Your task to perform on an android device: add a contact Image 0: 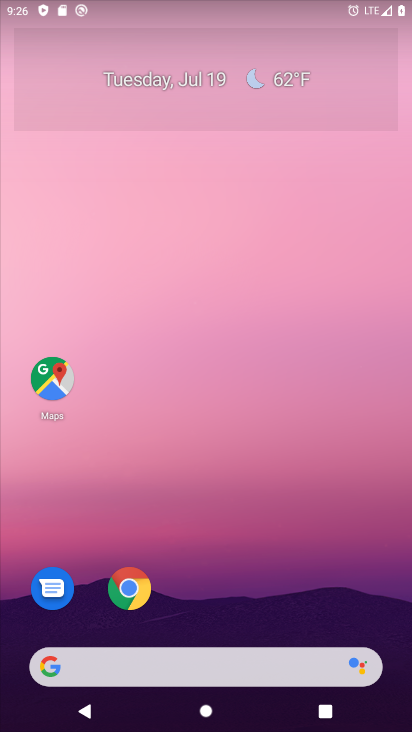
Step 0: drag from (310, 299) to (328, 23)
Your task to perform on an android device: add a contact Image 1: 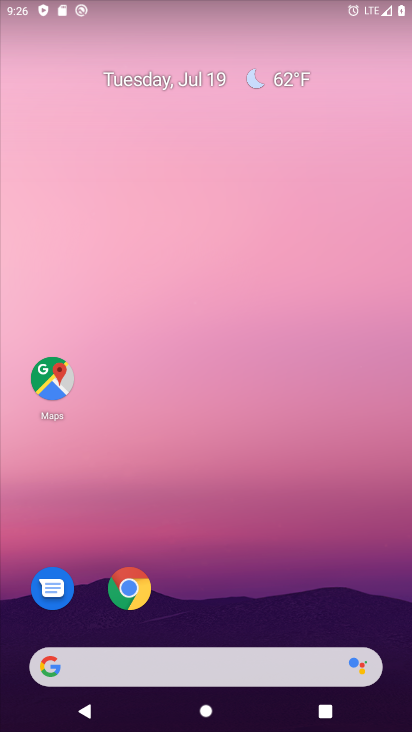
Step 1: drag from (247, 69) to (171, 2)
Your task to perform on an android device: add a contact Image 2: 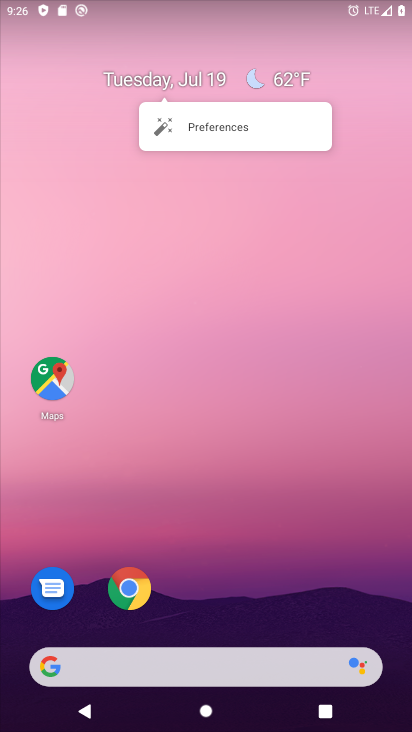
Step 2: click (246, 583)
Your task to perform on an android device: add a contact Image 3: 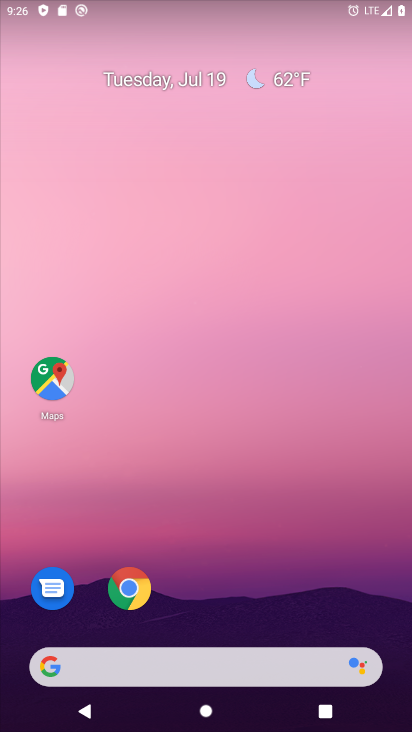
Step 3: drag from (260, 495) to (265, 63)
Your task to perform on an android device: add a contact Image 4: 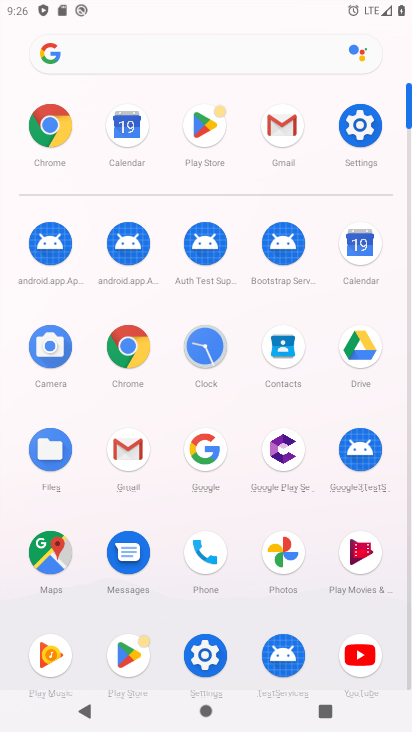
Step 4: click (192, 559)
Your task to perform on an android device: add a contact Image 5: 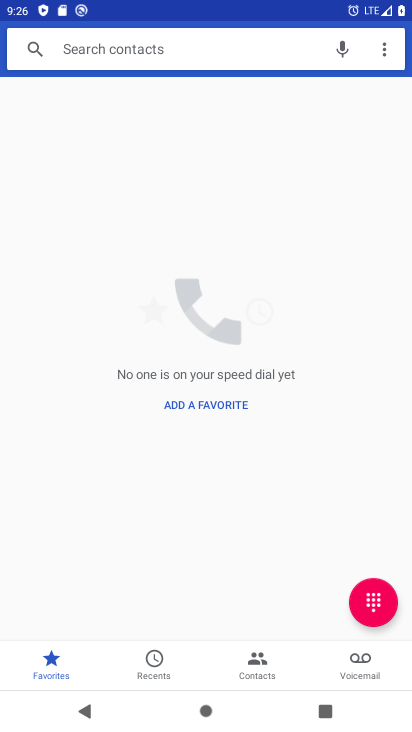
Step 5: click (240, 657)
Your task to perform on an android device: add a contact Image 6: 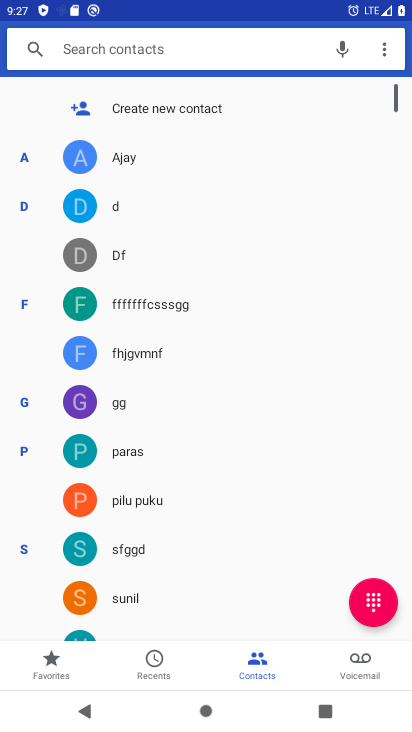
Step 6: click (173, 99)
Your task to perform on an android device: add a contact Image 7: 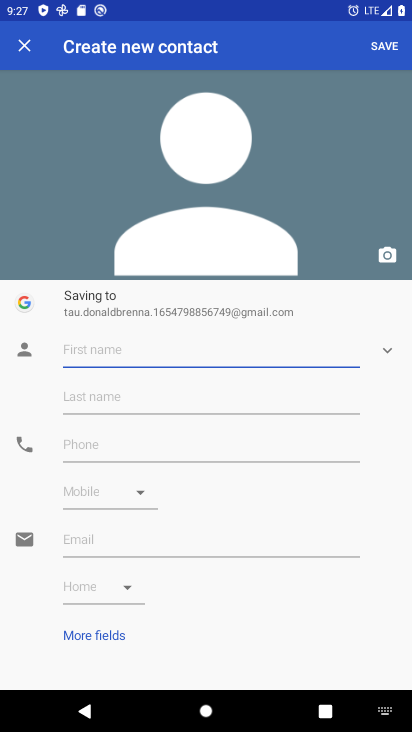
Step 7: type "tyuhhhhhhh"
Your task to perform on an android device: add a contact Image 8: 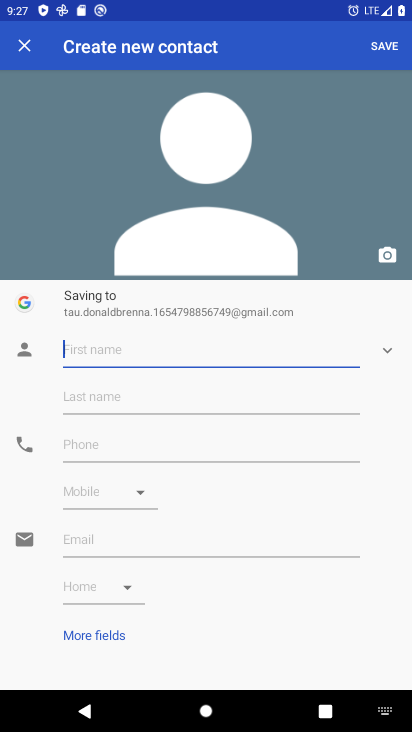
Step 8: click (109, 443)
Your task to perform on an android device: add a contact Image 9: 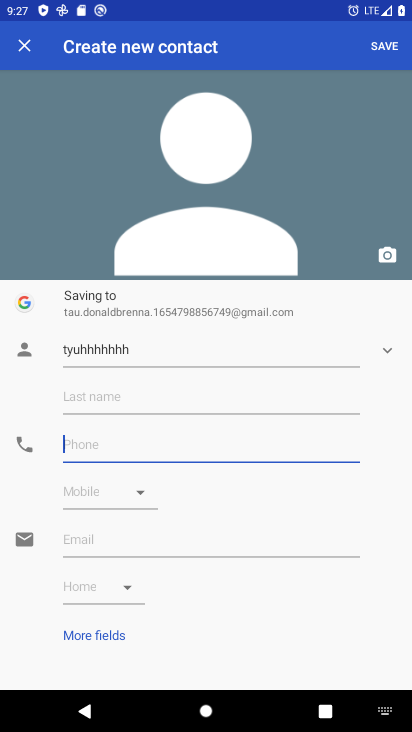
Step 9: type "7654356666"
Your task to perform on an android device: add a contact Image 10: 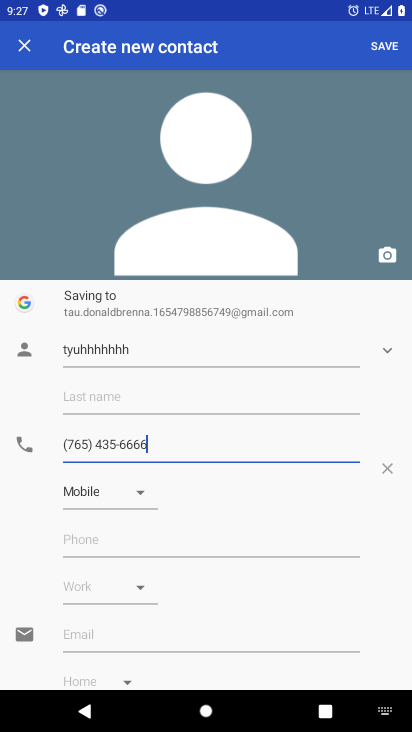
Step 10: click (369, 50)
Your task to perform on an android device: add a contact Image 11: 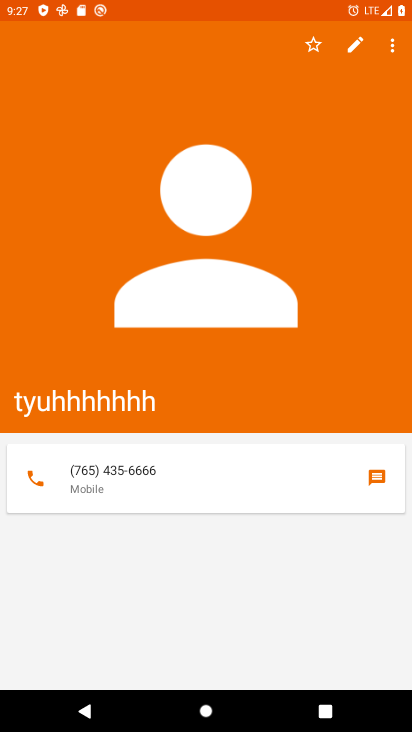
Step 11: task complete